Your task to perform on an android device: turn off priority inbox in the gmail app Image 0: 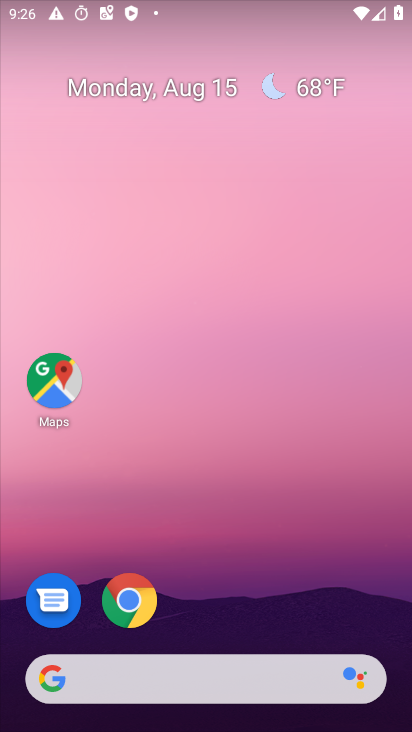
Step 0: drag from (223, 591) to (223, 175)
Your task to perform on an android device: turn off priority inbox in the gmail app Image 1: 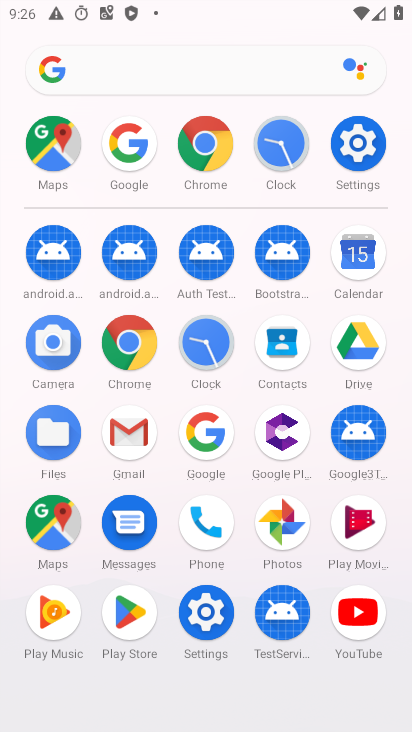
Step 1: click (130, 433)
Your task to perform on an android device: turn off priority inbox in the gmail app Image 2: 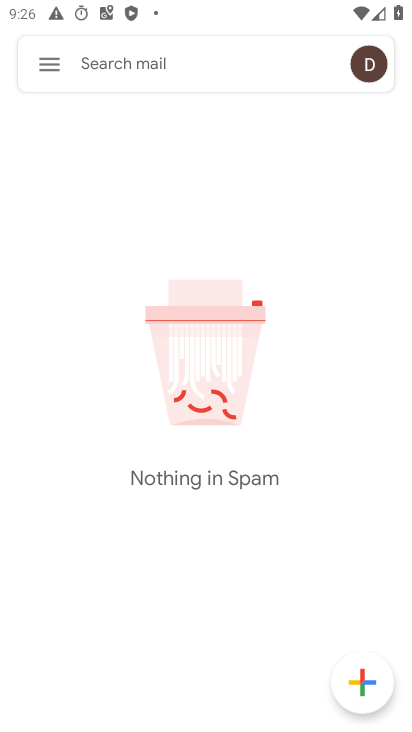
Step 2: click (48, 64)
Your task to perform on an android device: turn off priority inbox in the gmail app Image 3: 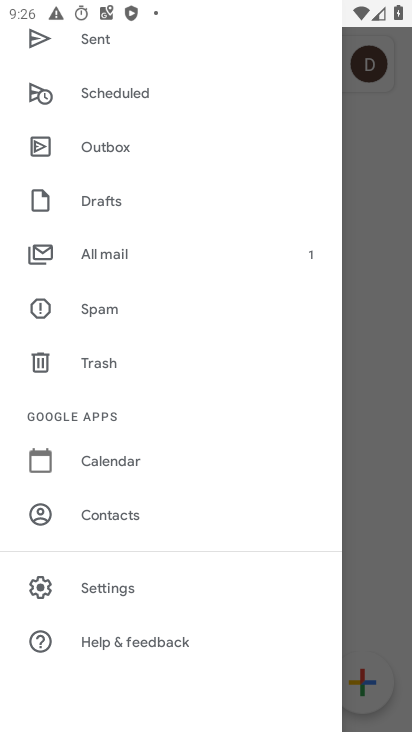
Step 3: click (120, 587)
Your task to perform on an android device: turn off priority inbox in the gmail app Image 4: 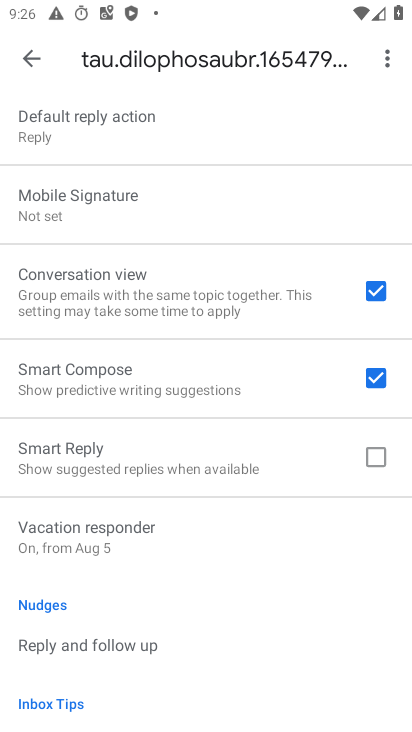
Step 4: drag from (126, 188) to (131, 498)
Your task to perform on an android device: turn off priority inbox in the gmail app Image 5: 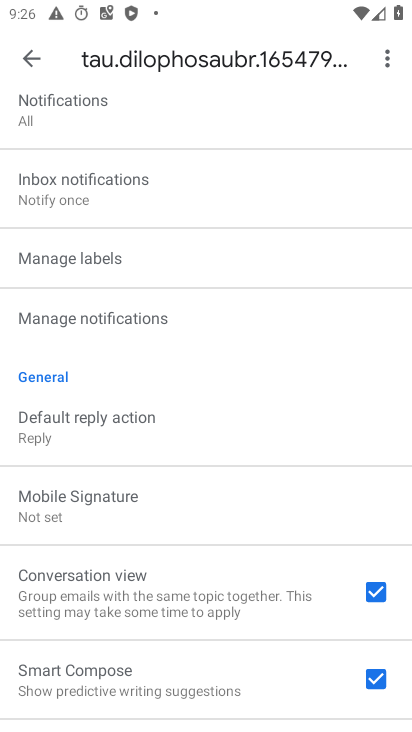
Step 5: drag from (103, 168) to (129, 505)
Your task to perform on an android device: turn off priority inbox in the gmail app Image 6: 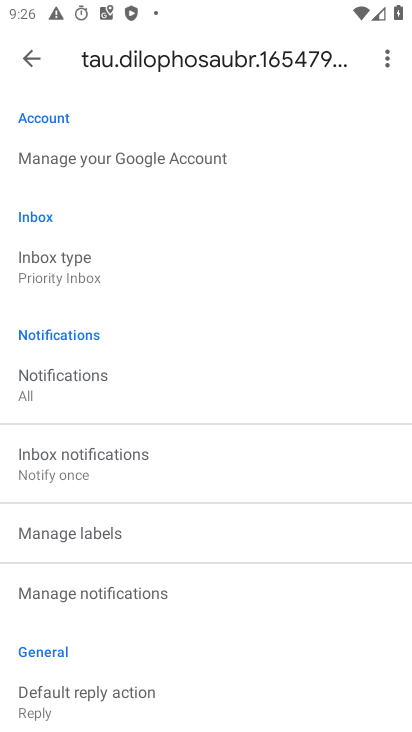
Step 6: click (76, 268)
Your task to perform on an android device: turn off priority inbox in the gmail app Image 7: 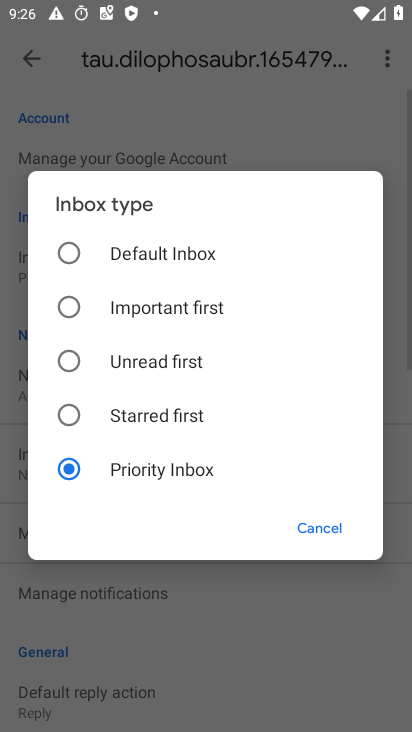
Step 7: click (74, 256)
Your task to perform on an android device: turn off priority inbox in the gmail app Image 8: 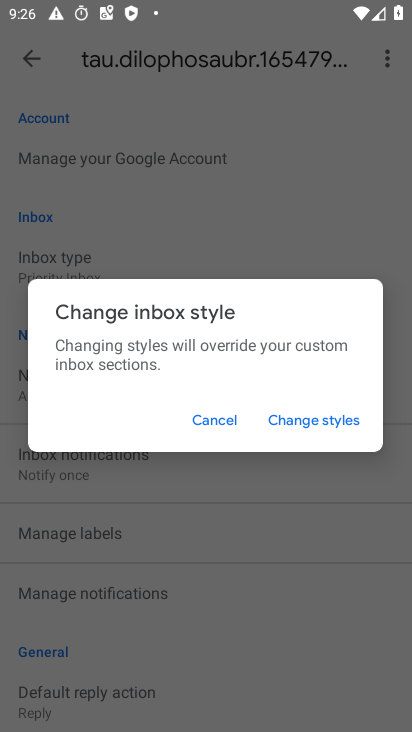
Step 8: click (226, 416)
Your task to perform on an android device: turn off priority inbox in the gmail app Image 9: 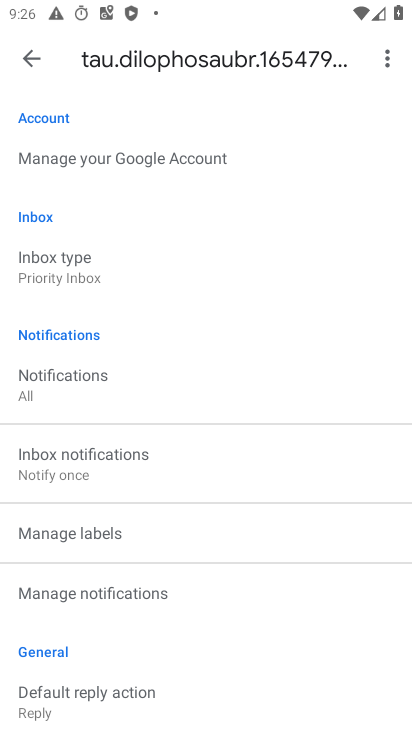
Step 9: task complete